Your task to perform on an android device: empty trash in google photos Image 0: 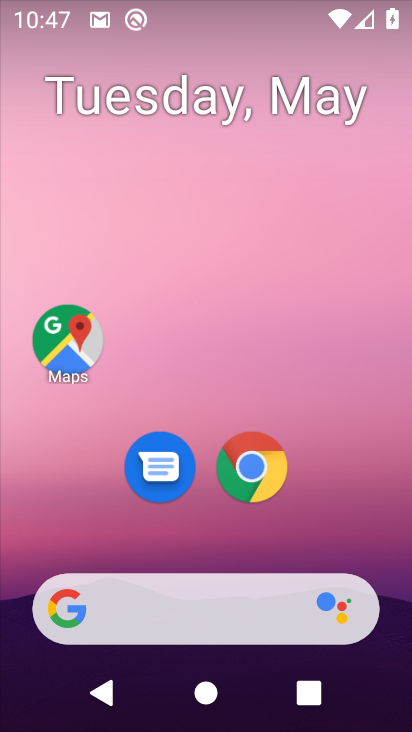
Step 0: drag from (200, 536) to (385, 576)
Your task to perform on an android device: empty trash in google photos Image 1: 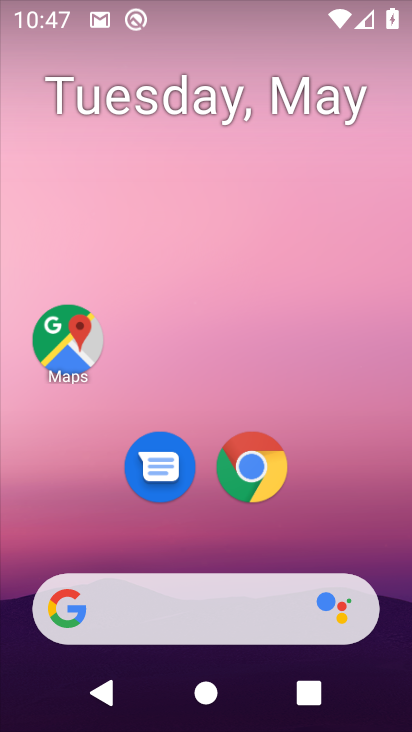
Step 1: drag from (193, 644) to (214, 224)
Your task to perform on an android device: empty trash in google photos Image 2: 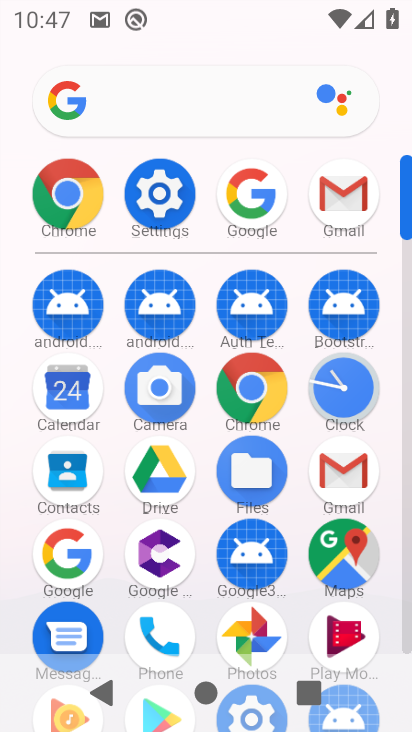
Step 2: click (257, 636)
Your task to perform on an android device: empty trash in google photos Image 3: 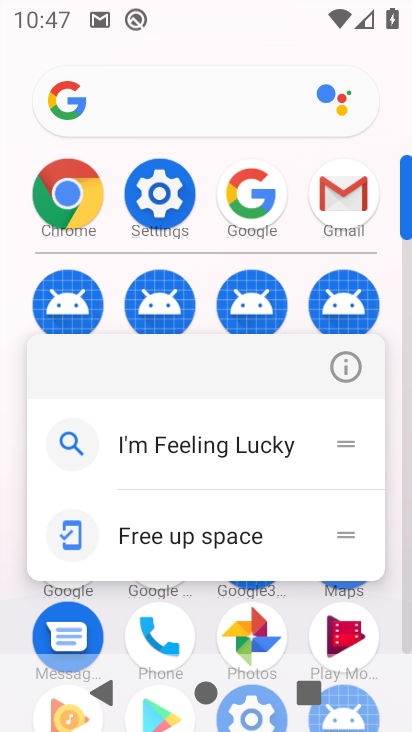
Step 3: click (335, 370)
Your task to perform on an android device: empty trash in google photos Image 4: 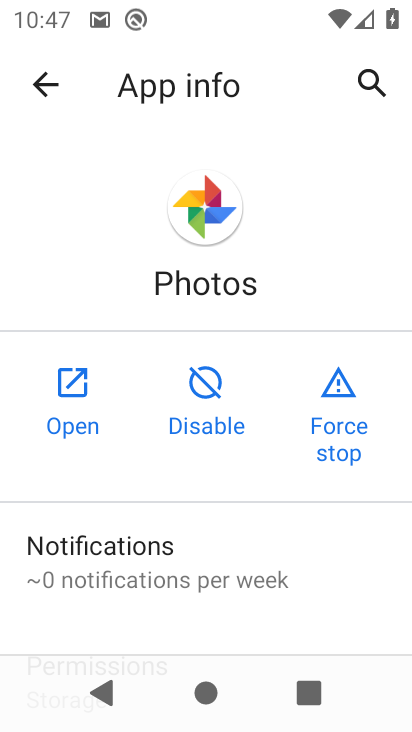
Step 4: click (81, 408)
Your task to perform on an android device: empty trash in google photos Image 5: 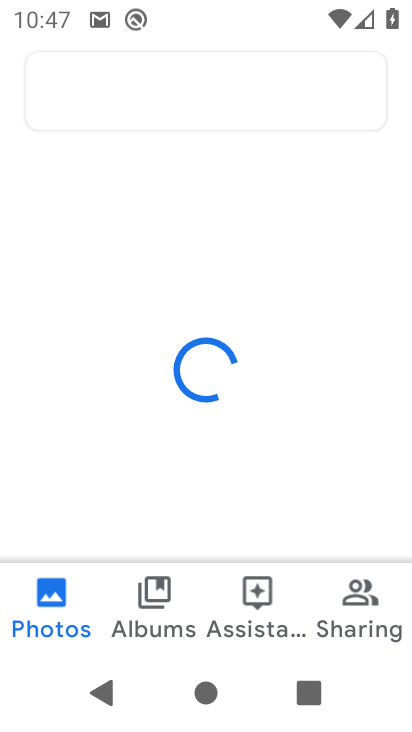
Step 5: click (322, 605)
Your task to perform on an android device: empty trash in google photos Image 6: 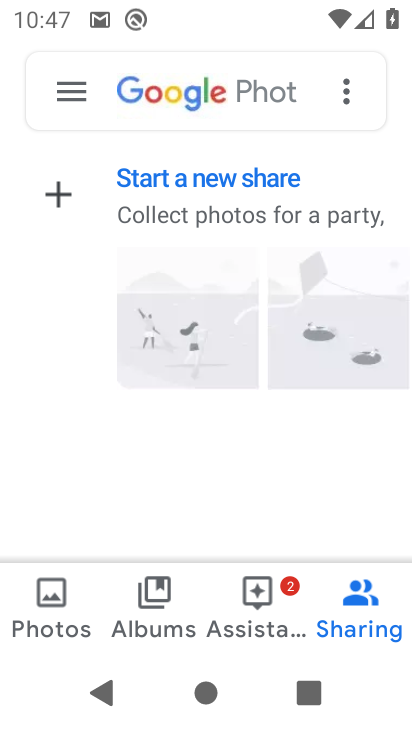
Step 6: click (52, 73)
Your task to perform on an android device: empty trash in google photos Image 7: 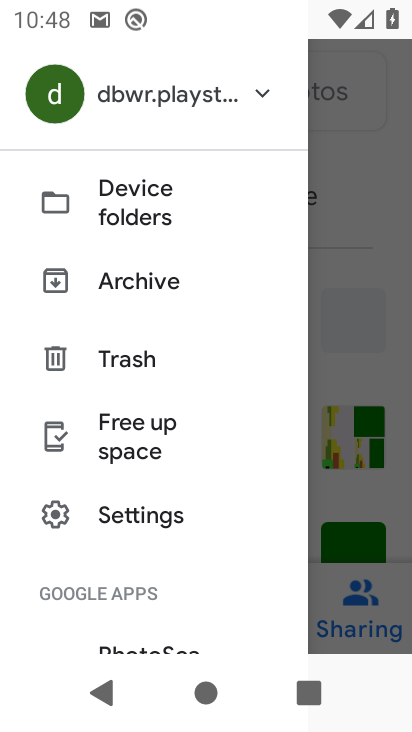
Step 7: drag from (163, 597) to (266, 67)
Your task to perform on an android device: empty trash in google photos Image 8: 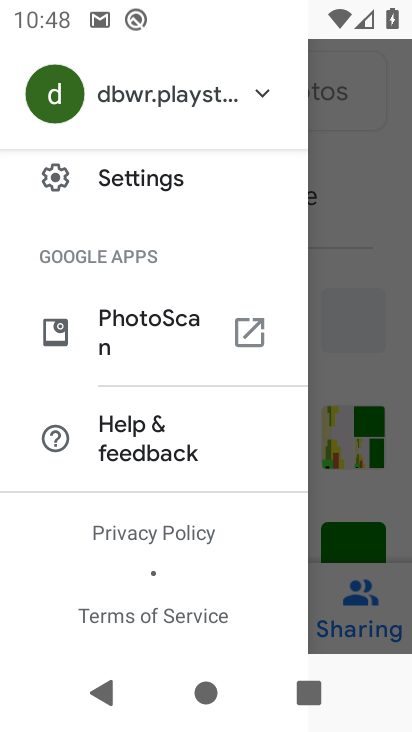
Step 8: drag from (122, 233) to (232, 602)
Your task to perform on an android device: empty trash in google photos Image 9: 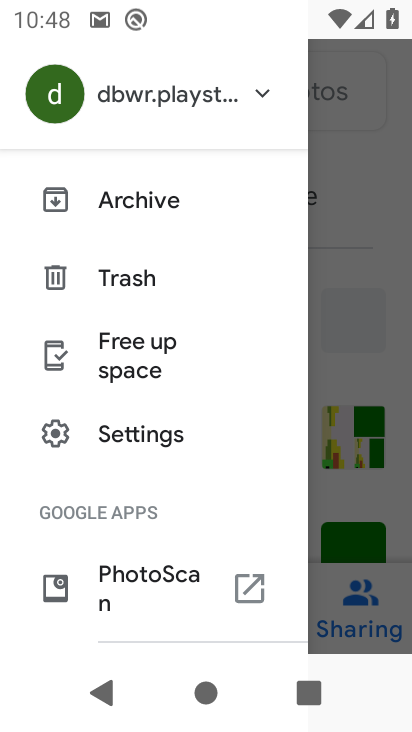
Step 9: click (116, 279)
Your task to perform on an android device: empty trash in google photos Image 10: 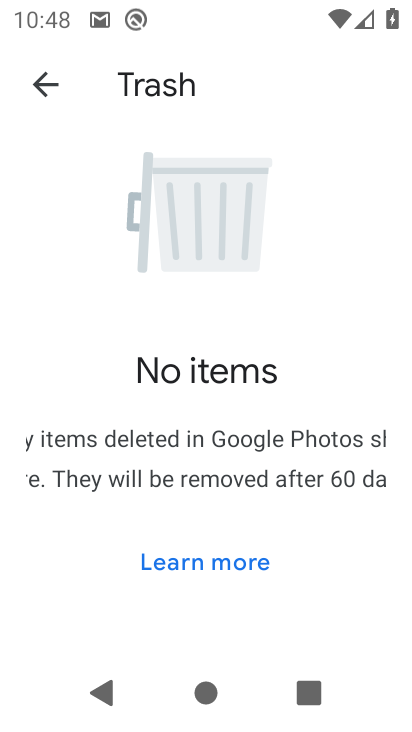
Step 10: task complete